Your task to perform on an android device: Add "acer predator" to the cart on walmart.com, then select checkout. Image 0: 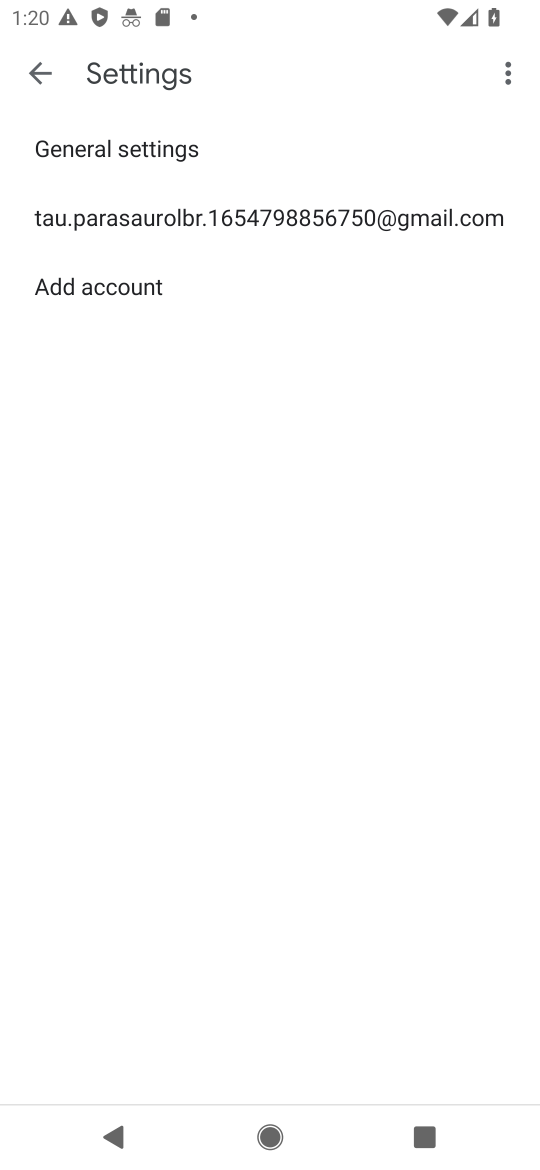
Step 0: press home button
Your task to perform on an android device: Add "acer predator" to the cart on walmart.com, then select checkout. Image 1: 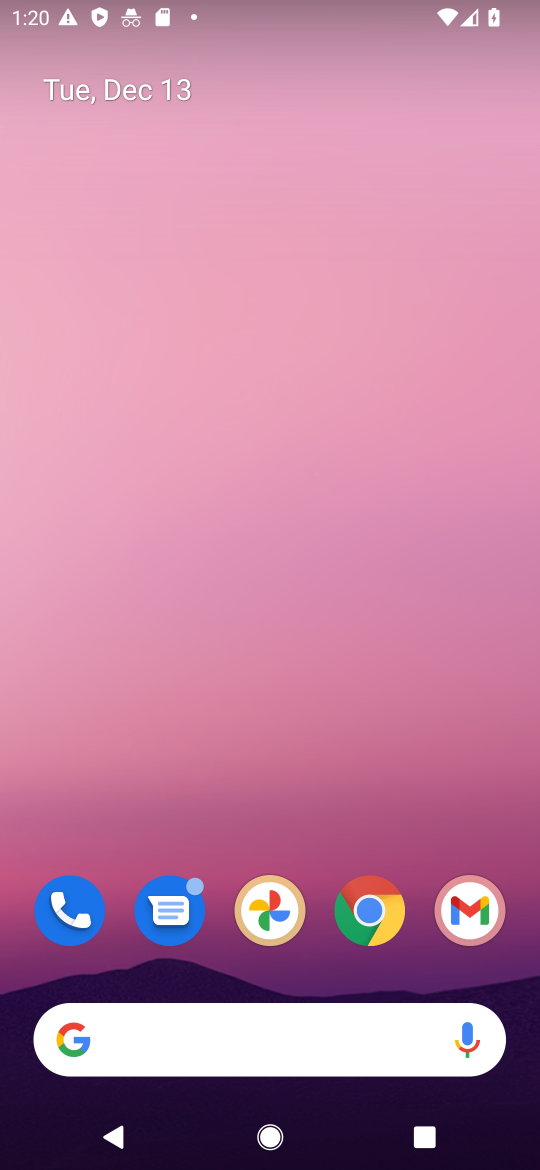
Step 1: click (367, 912)
Your task to perform on an android device: Add "acer predator" to the cart on walmart.com, then select checkout. Image 2: 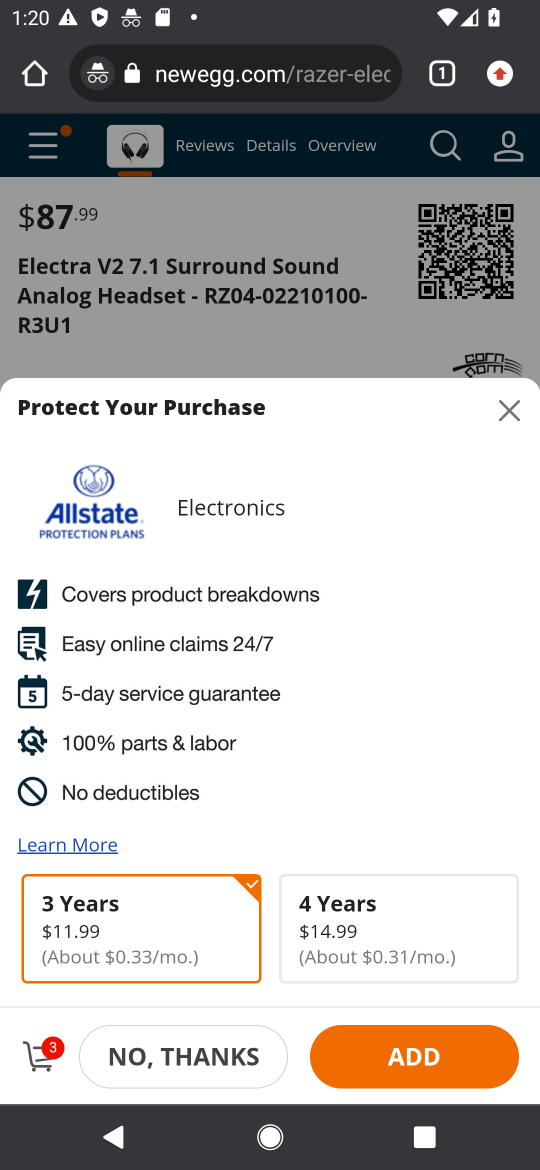
Step 2: click (269, 76)
Your task to perform on an android device: Add "acer predator" to the cart on walmart.com, then select checkout. Image 3: 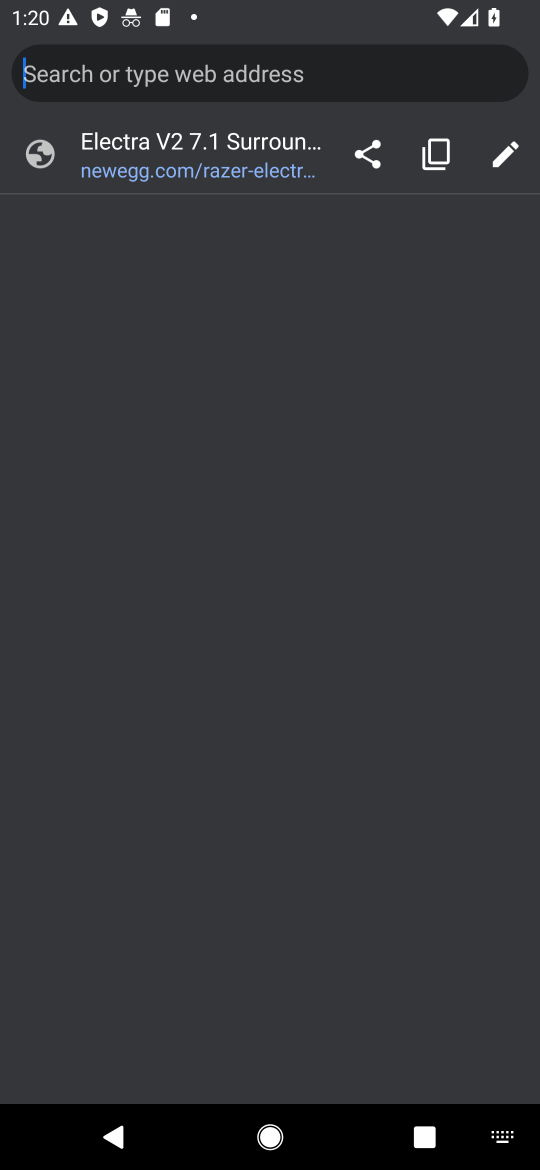
Step 3: type "WALMART"
Your task to perform on an android device: Add "acer predator" to the cart on walmart.com, then select checkout. Image 4: 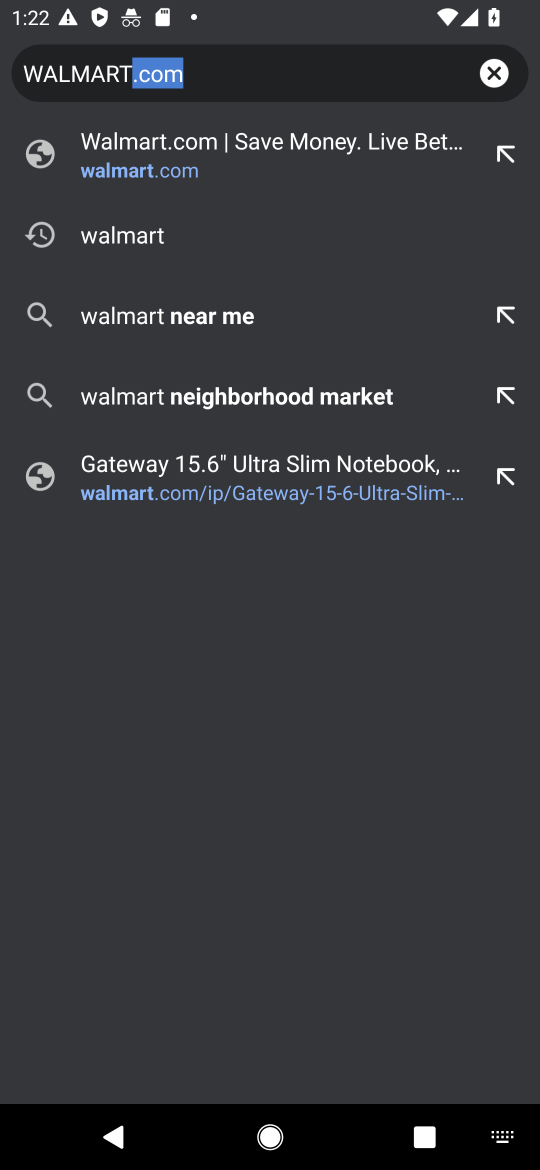
Step 4: click (161, 155)
Your task to perform on an android device: Add "acer predator" to the cart on walmart.com, then select checkout. Image 5: 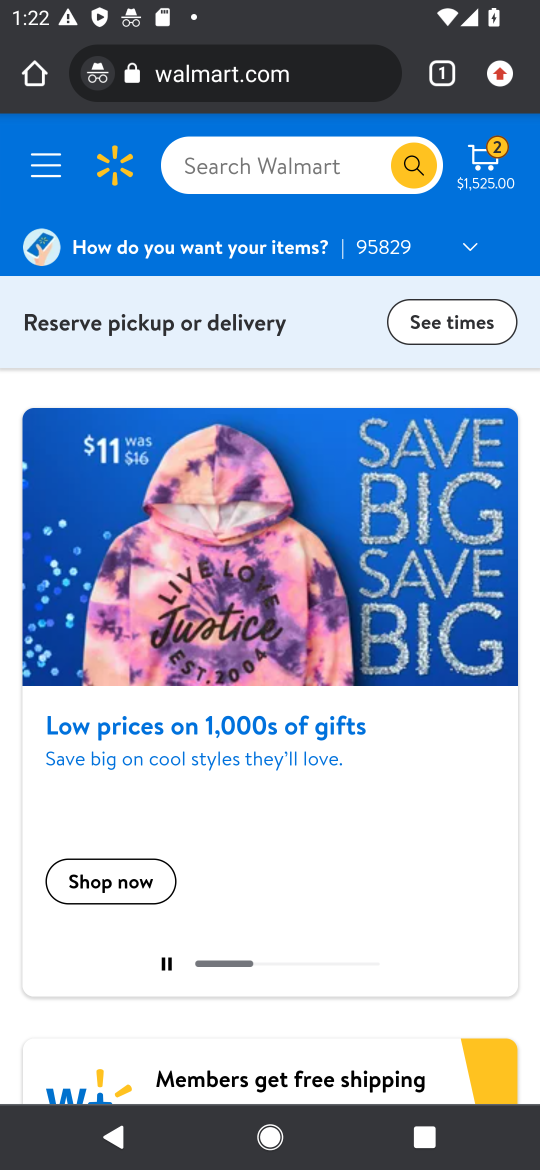
Step 5: click (279, 168)
Your task to perform on an android device: Add "acer predator" to the cart on walmart.com, then select checkout. Image 6: 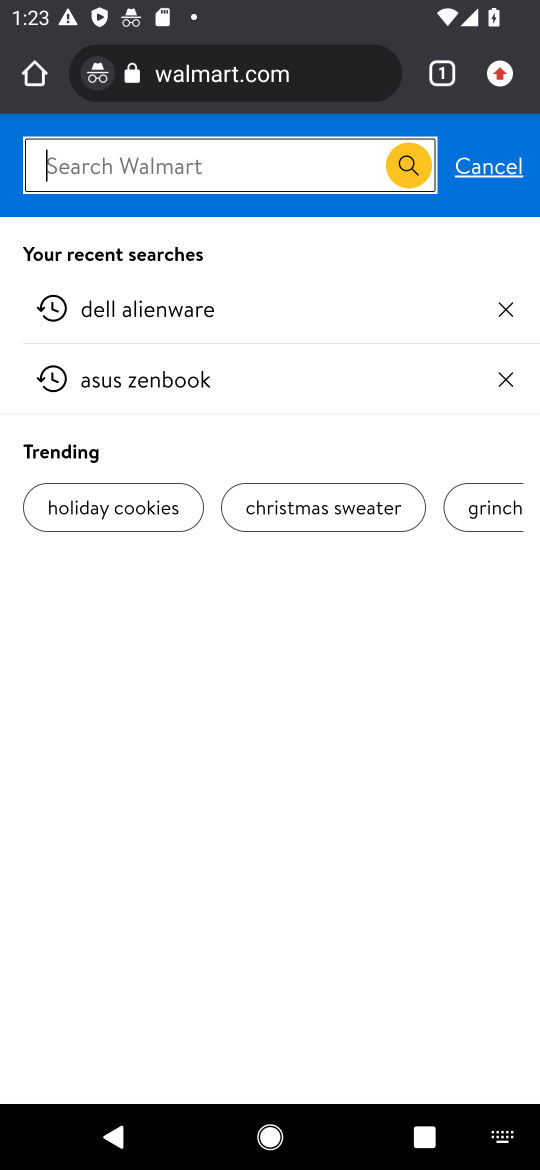
Step 6: type "ACER PREDATOR"
Your task to perform on an android device: Add "acer predator" to the cart on walmart.com, then select checkout. Image 7: 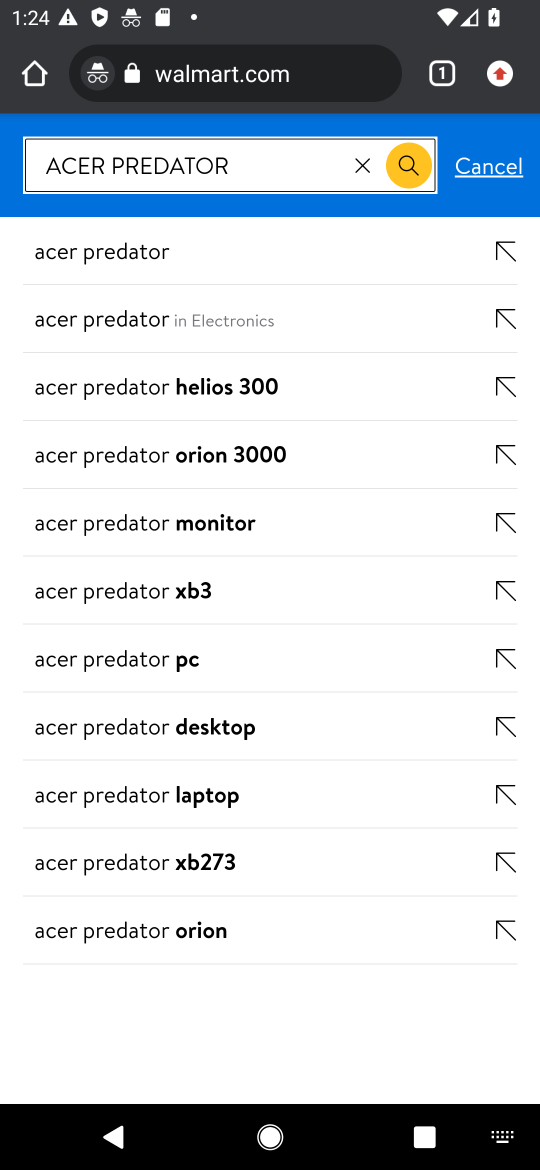
Step 7: click (167, 261)
Your task to perform on an android device: Add "acer predator" to the cart on walmart.com, then select checkout. Image 8: 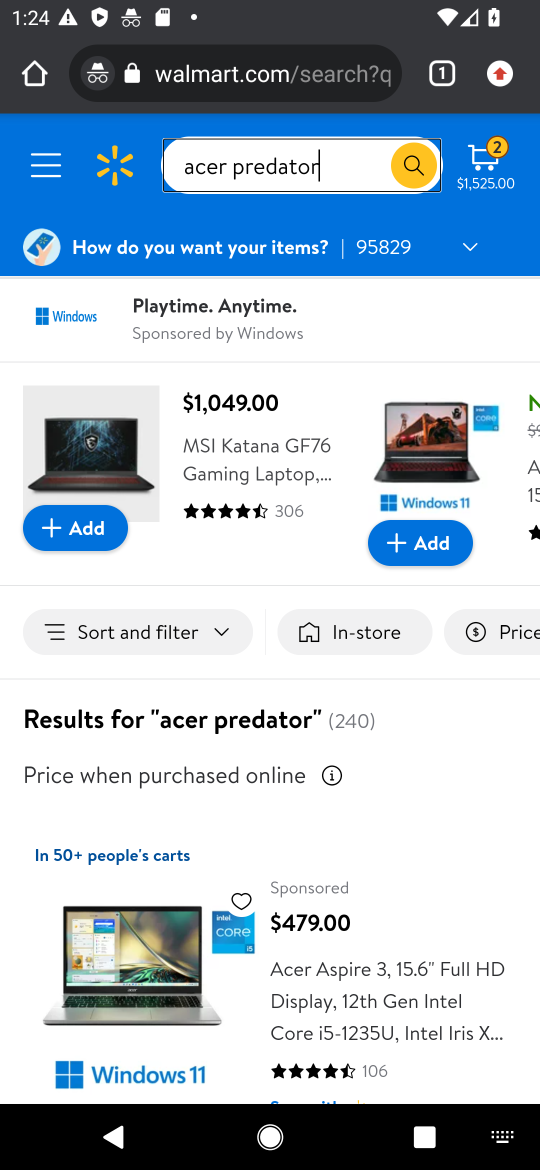
Step 8: drag from (402, 935) to (381, 319)
Your task to perform on an android device: Add "acer predator" to the cart on walmart.com, then select checkout. Image 9: 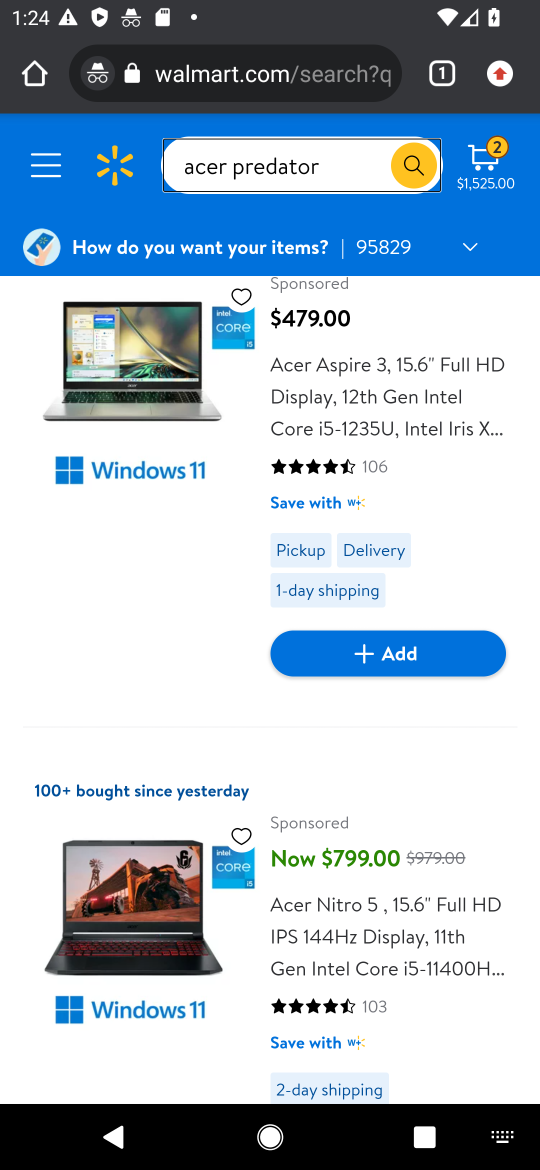
Step 9: click (390, 655)
Your task to perform on an android device: Add "acer predator" to the cart on walmart.com, then select checkout. Image 10: 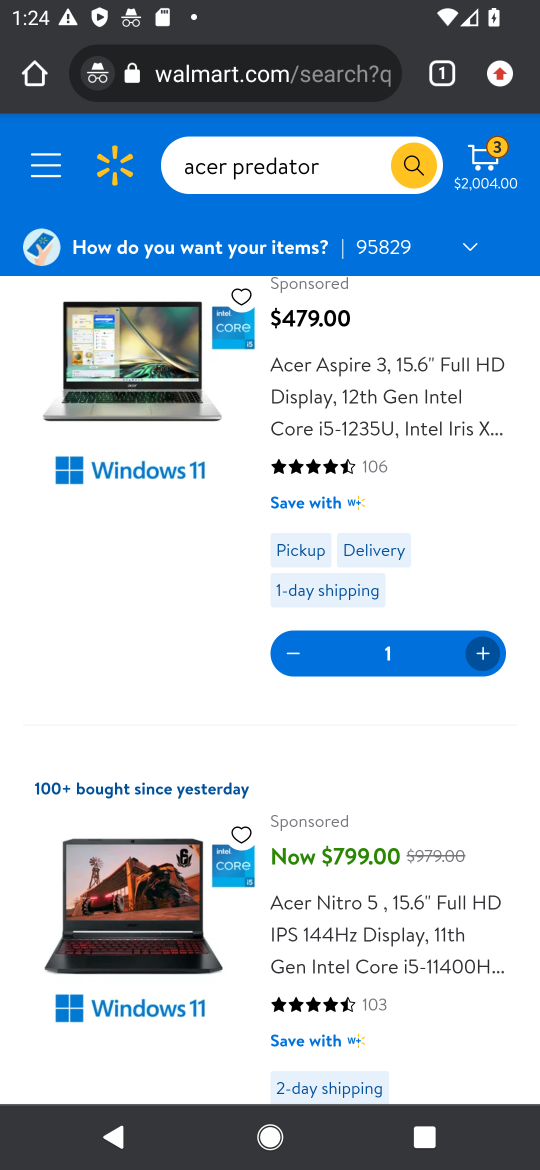
Step 10: click (483, 148)
Your task to perform on an android device: Add "acer predator" to the cart on walmart.com, then select checkout. Image 11: 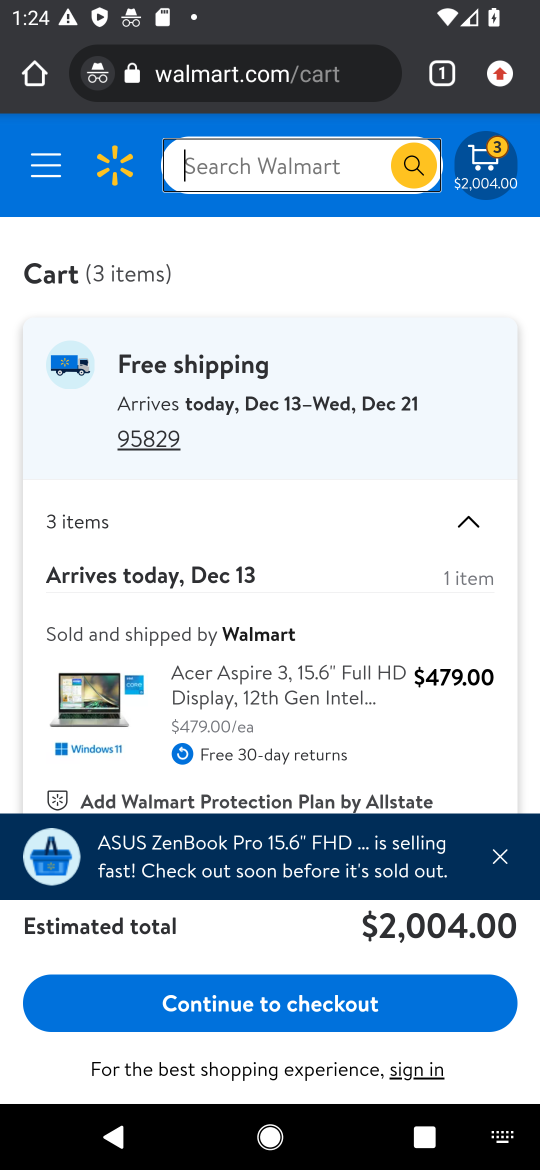
Step 11: click (292, 1011)
Your task to perform on an android device: Add "acer predator" to the cart on walmart.com, then select checkout. Image 12: 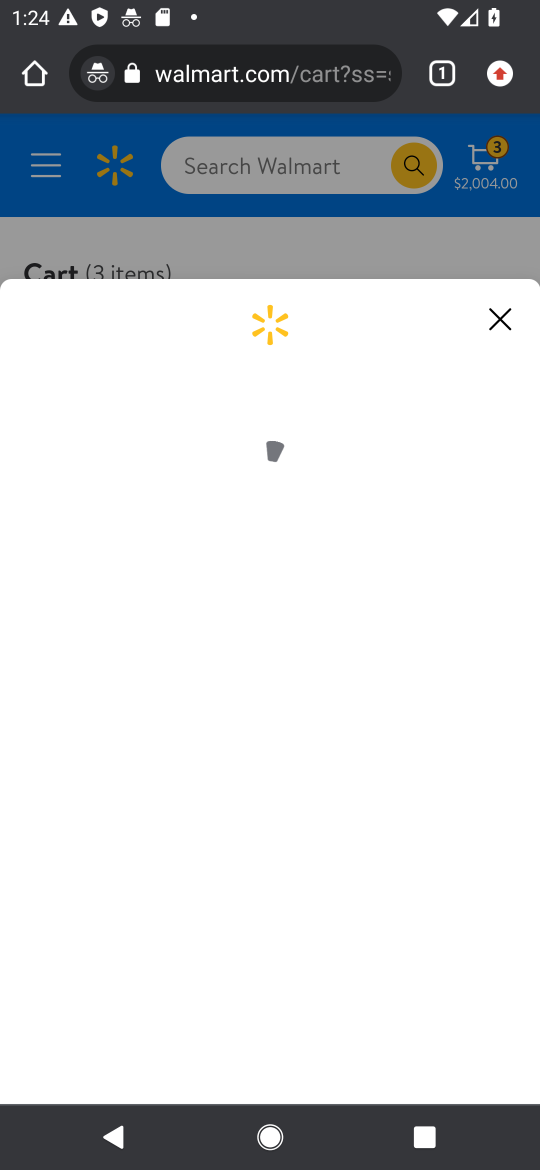
Step 12: task complete